Your task to perform on an android device: Open Yahoo.com Image 0: 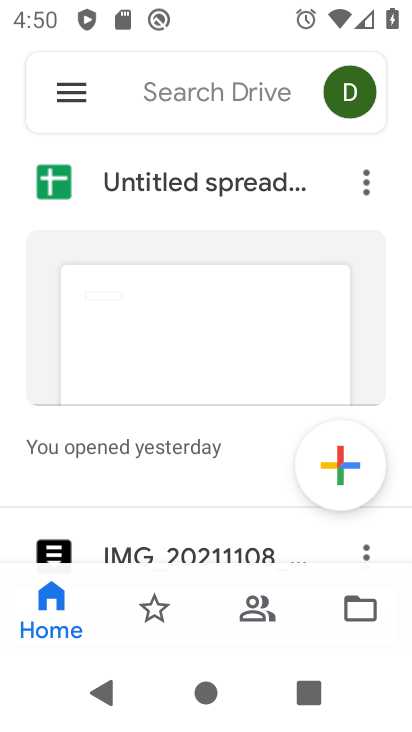
Step 0: press home button
Your task to perform on an android device: Open Yahoo.com Image 1: 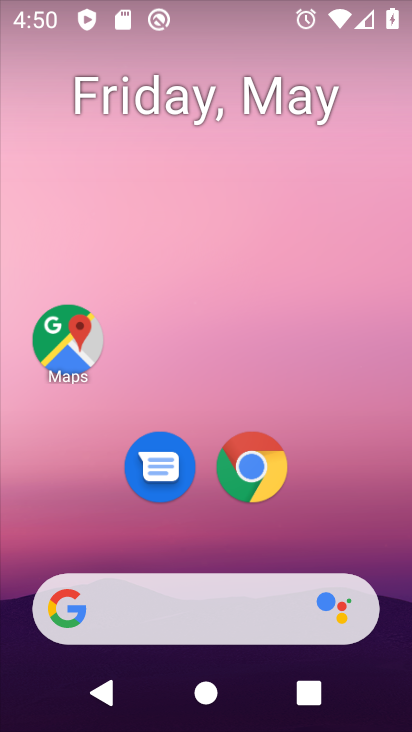
Step 1: drag from (331, 517) to (349, 53)
Your task to perform on an android device: Open Yahoo.com Image 2: 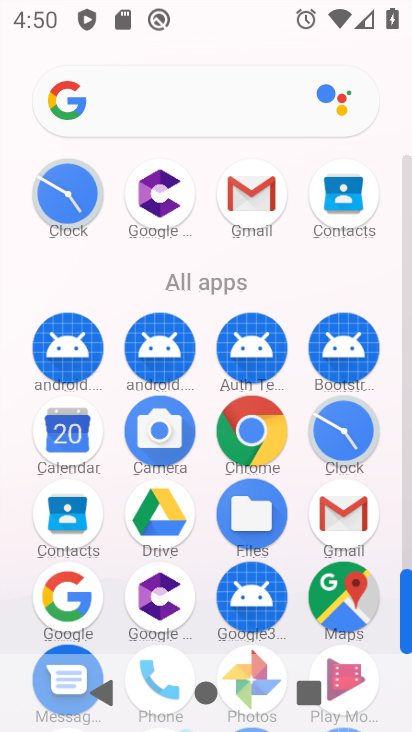
Step 2: click (255, 425)
Your task to perform on an android device: Open Yahoo.com Image 3: 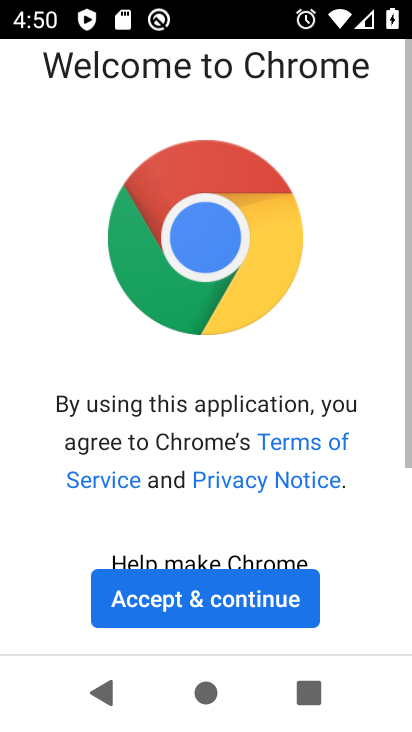
Step 3: click (231, 614)
Your task to perform on an android device: Open Yahoo.com Image 4: 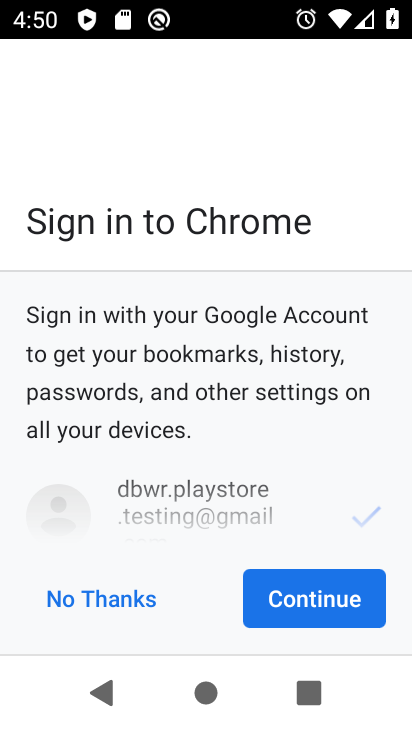
Step 4: click (298, 607)
Your task to perform on an android device: Open Yahoo.com Image 5: 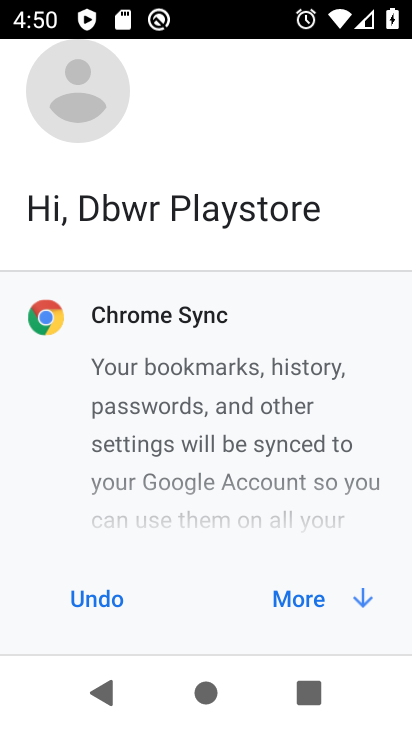
Step 5: click (300, 579)
Your task to perform on an android device: Open Yahoo.com Image 6: 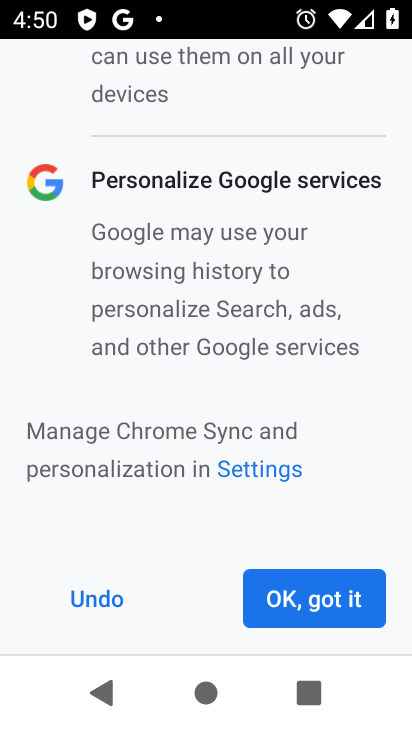
Step 6: click (308, 607)
Your task to perform on an android device: Open Yahoo.com Image 7: 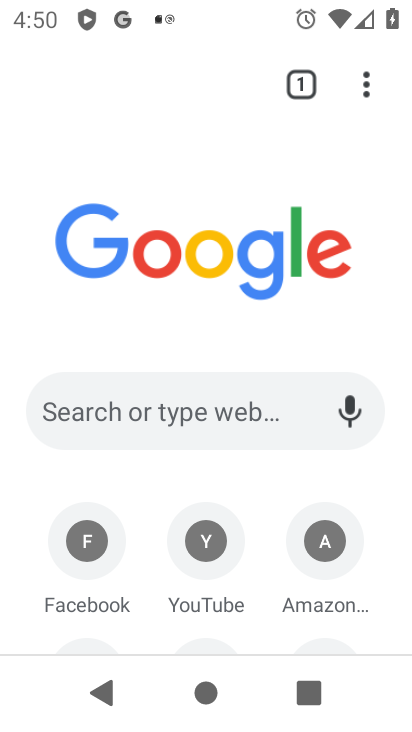
Step 7: click (179, 58)
Your task to perform on an android device: Open Yahoo.com Image 8: 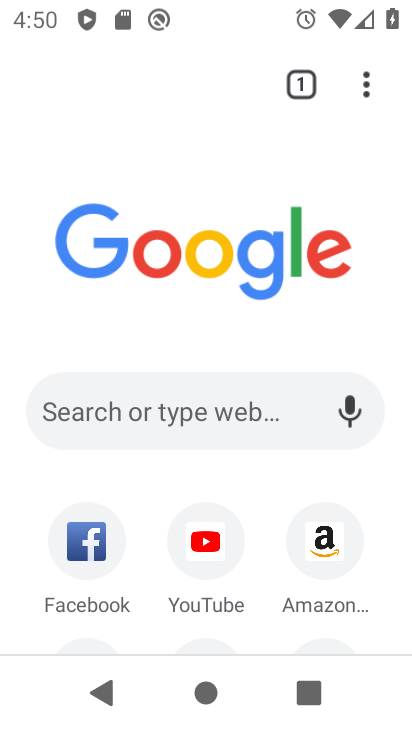
Step 8: drag from (199, 440) to (230, 187)
Your task to perform on an android device: Open Yahoo.com Image 9: 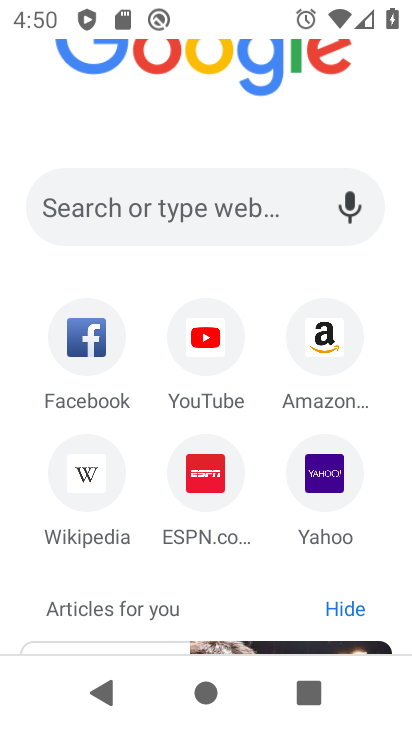
Step 9: click (328, 500)
Your task to perform on an android device: Open Yahoo.com Image 10: 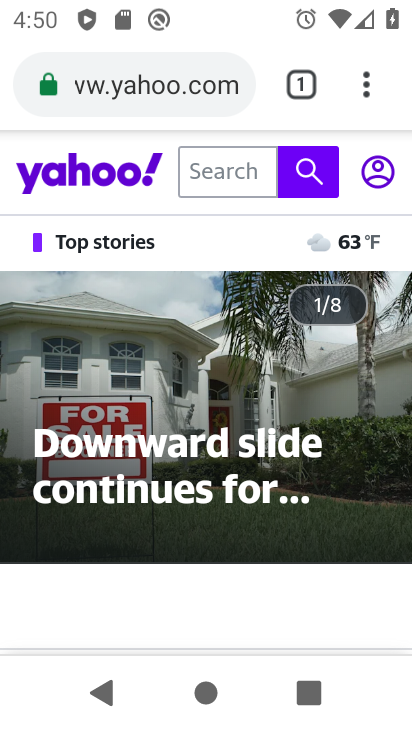
Step 10: task complete